Your task to perform on an android device: change the clock display to digital Image 0: 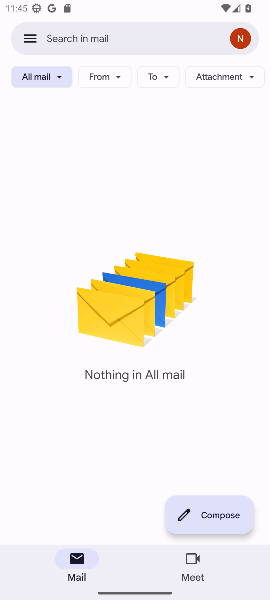
Step 0: press home button
Your task to perform on an android device: change the clock display to digital Image 1: 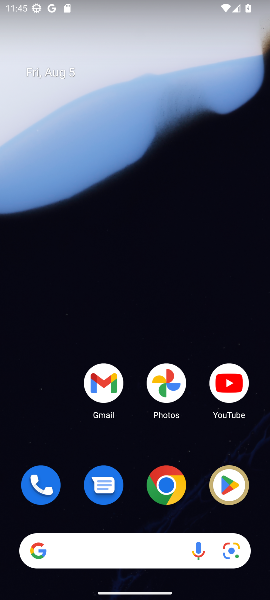
Step 1: drag from (142, 441) to (107, 98)
Your task to perform on an android device: change the clock display to digital Image 2: 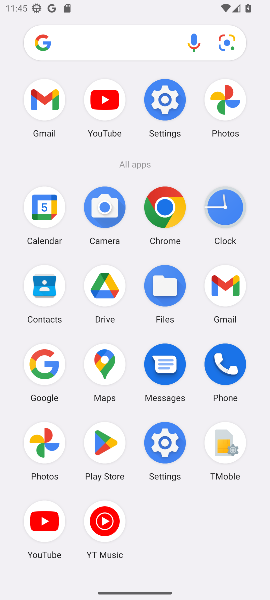
Step 2: click (225, 207)
Your task to perform on an android device: change the clock display to digital Image 3: 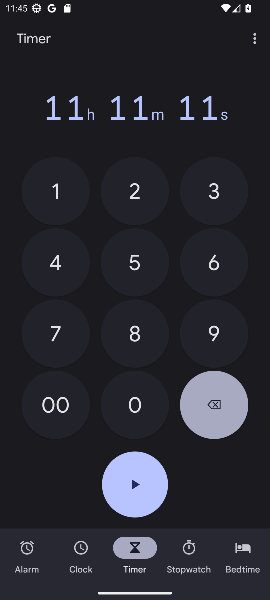
Step 3: click (256, 39)
Your task to perform on an android device: change the clock display to digital Image 4: 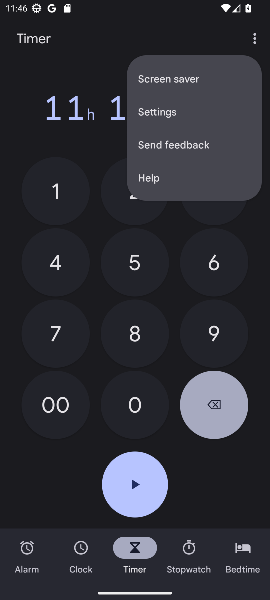
Step 4: click (169, 110)
Your task to perform on an android device: change the clock display to digital Image 5: 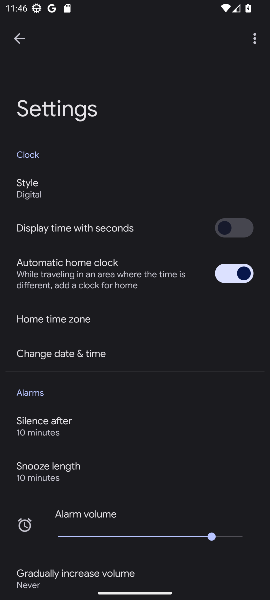
Step 5: click (40, 185)
Your task to perform on an android device: change the clock display to digital Image 6: 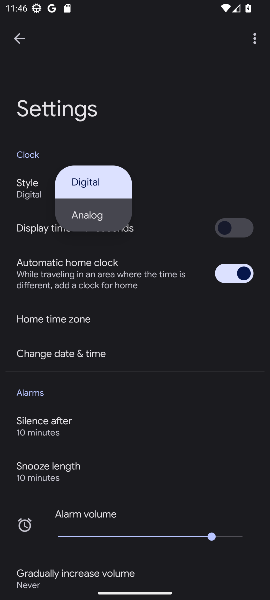
Step 6: click (77, 217)
Your task to perform on an android device: change the clock display to digital Image 7: 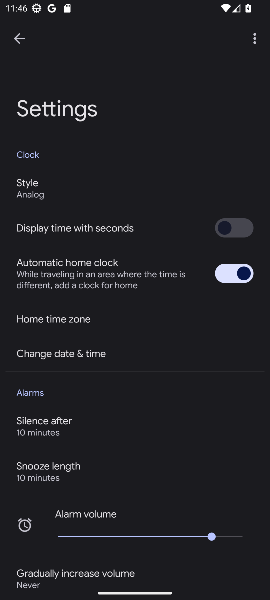
Step 7: task complete